Your task to perform on an android device: add a contact in the contacts app Image 0: 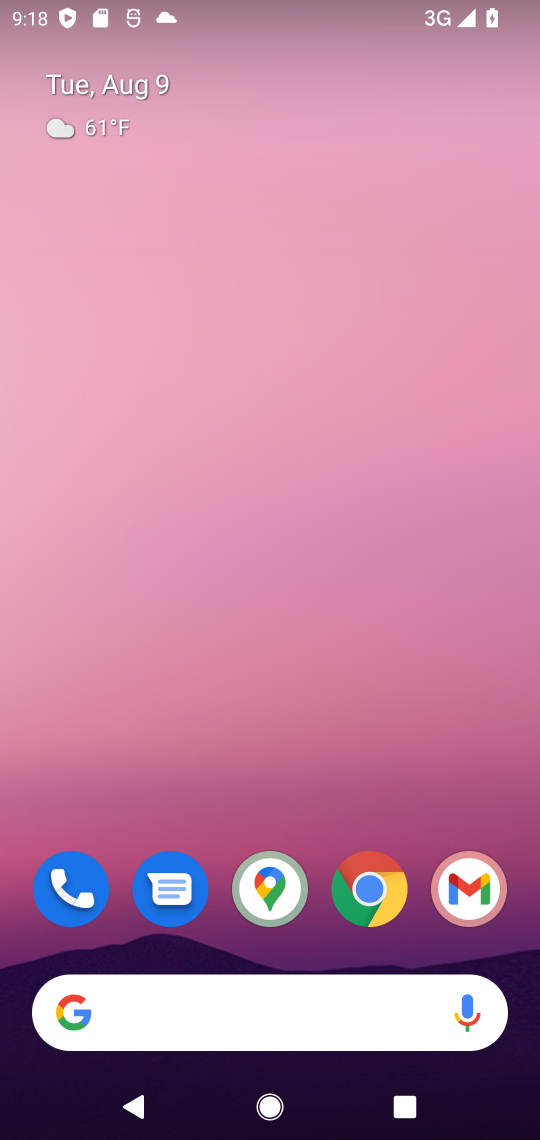
Step 0: drag from (195, 898) to (135, 70)
Your task to perform on an android device: add a contact in the contacts app Image 1: 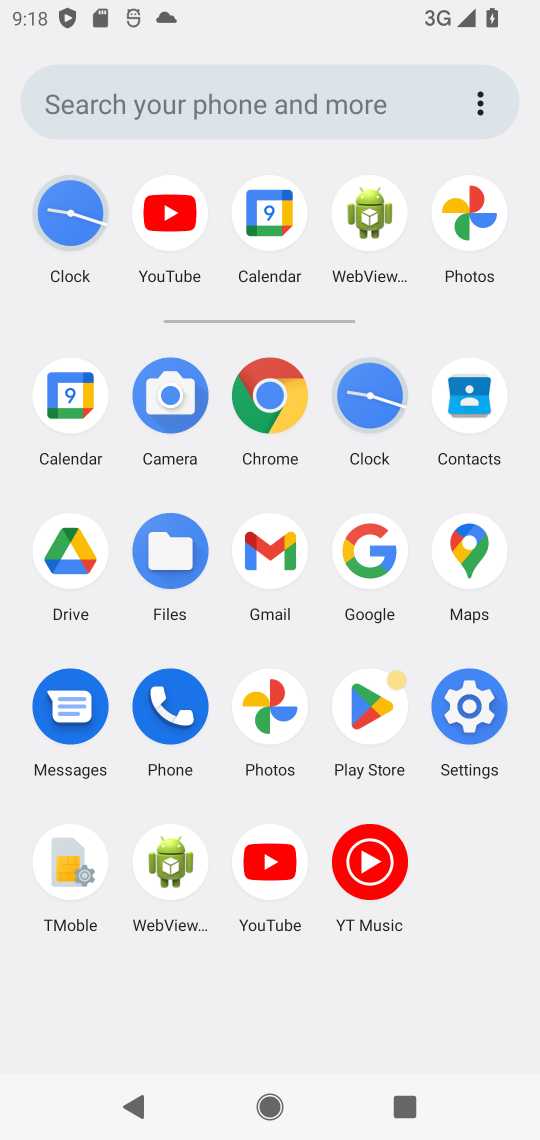
Step 1: click (146, 737)
Your task to perform on an android device: add a contact in the contacts app Image 2: 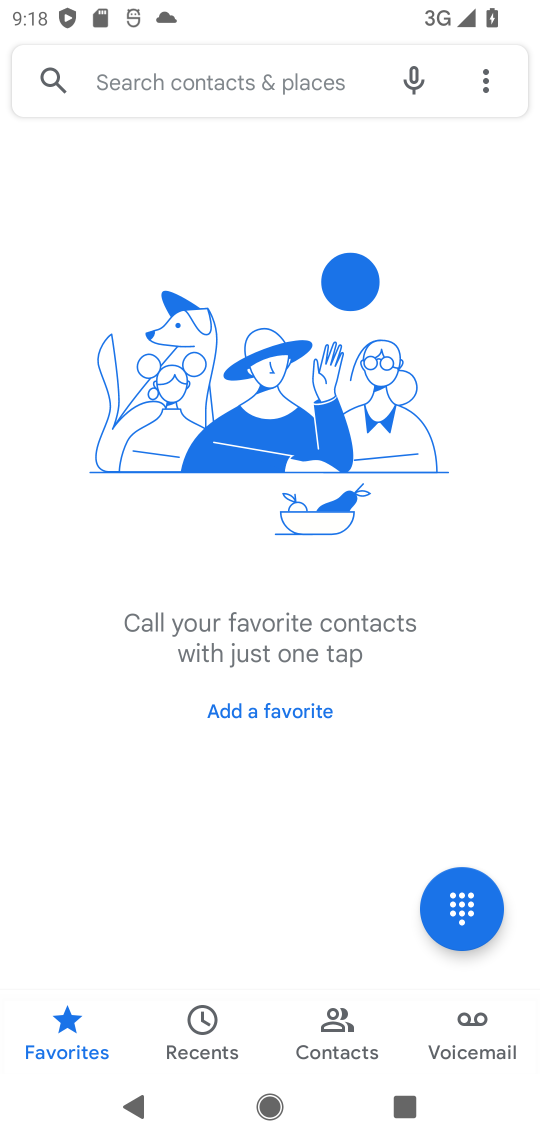
Step 2: click (306, 1040)
Your task to perform on an android device: add a contact in the contacts app Image 3: 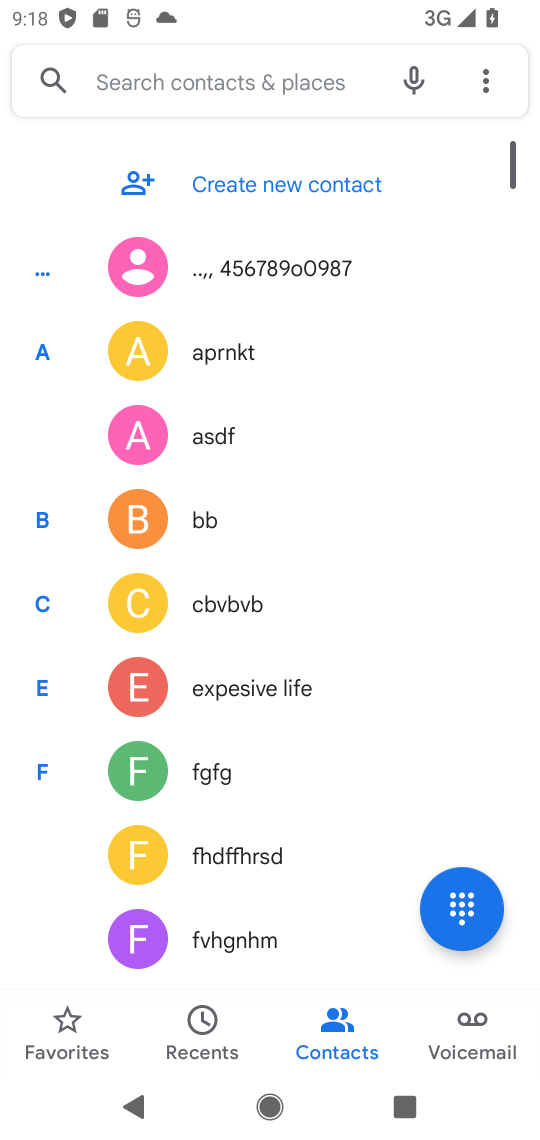
Step 3: click (265, 196)
Your task to perform on an android device: add a contact in the contacts app Image 4: 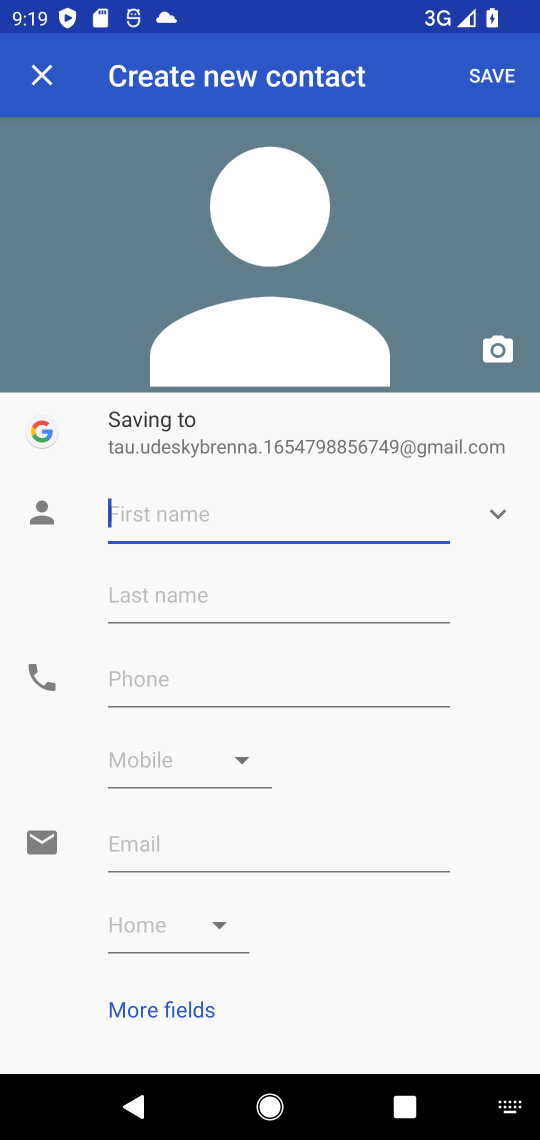
Step 4: type "rtytrty"
Your task to perform on an android device: add a contact in the contacts app Image 5: 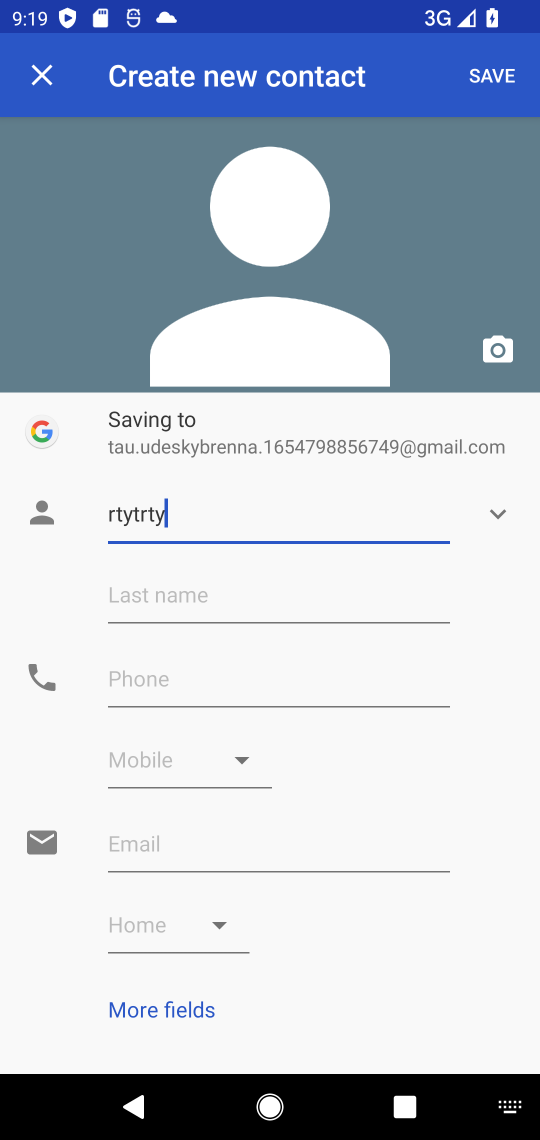
Step 5: click (142, 686)
Your task to perform on an android device: add a contact in the contacts app Image 6: 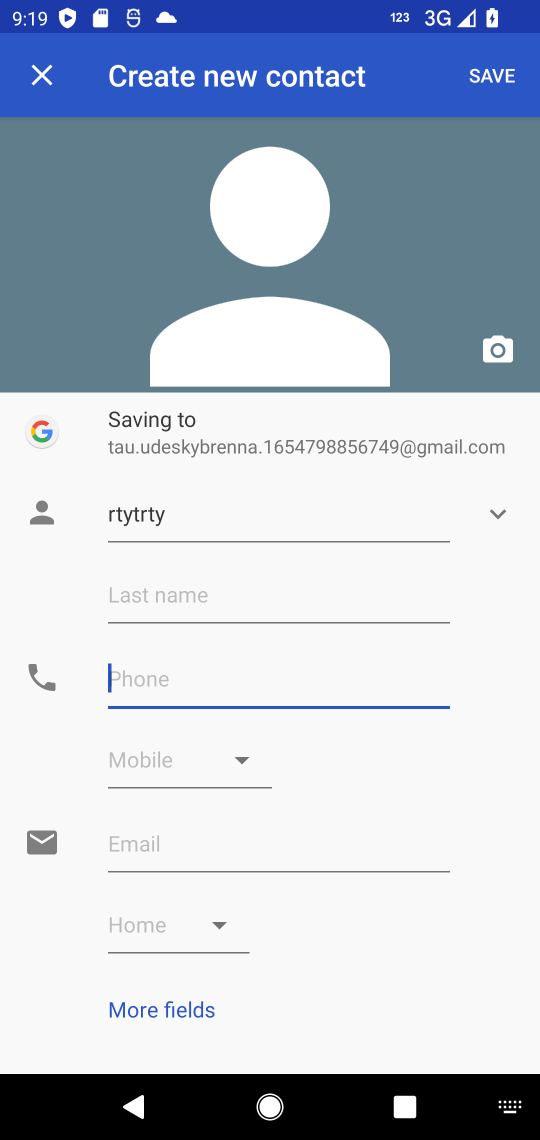
Step 6: type "45678765"
Your task to perform on an android device: add a contact in the contacts app Image 7: 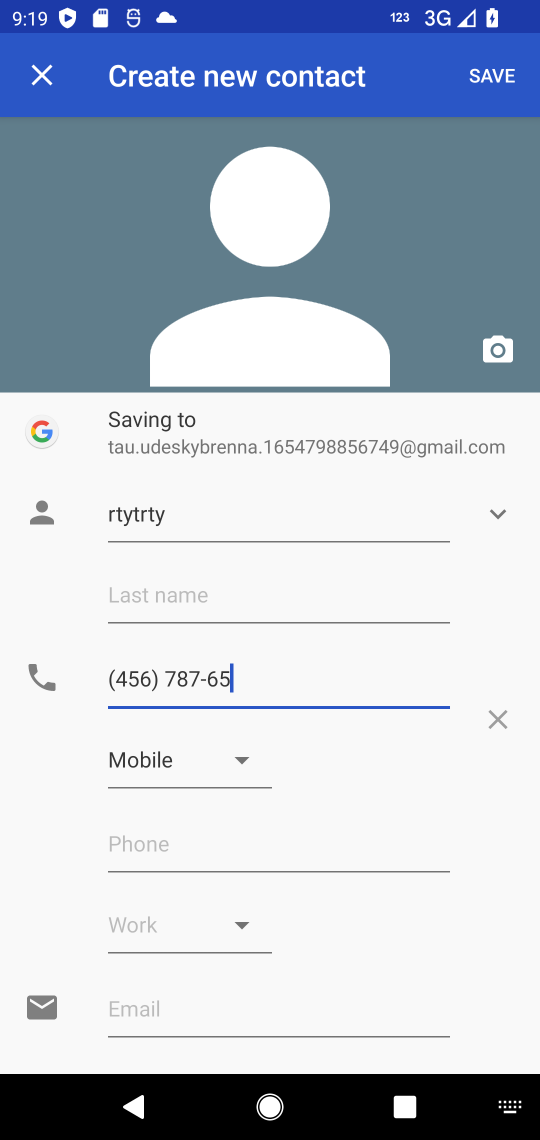
Step 7: click (491, 81)
Your task to perform on an android device: add a contact in the contacts app Image 8: 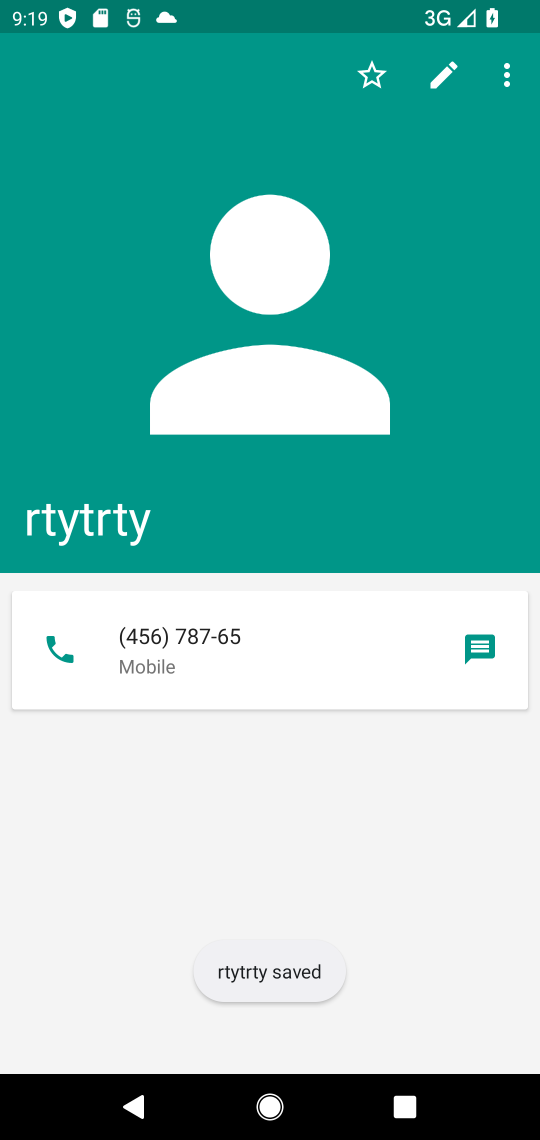
Step 8: task complete